Your task to perform on an android device: delete a single message in the gmail app Image 0: 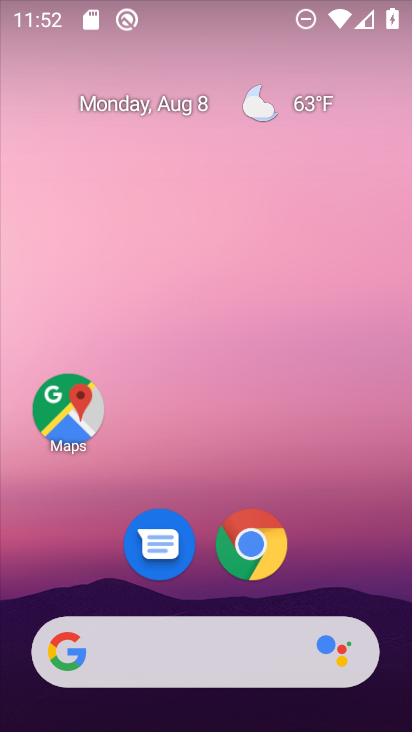
Step 0: drag from (182, 671) to (183, 200)
Your task to perform on an android device: delete a single message in the gmail app Image 1: 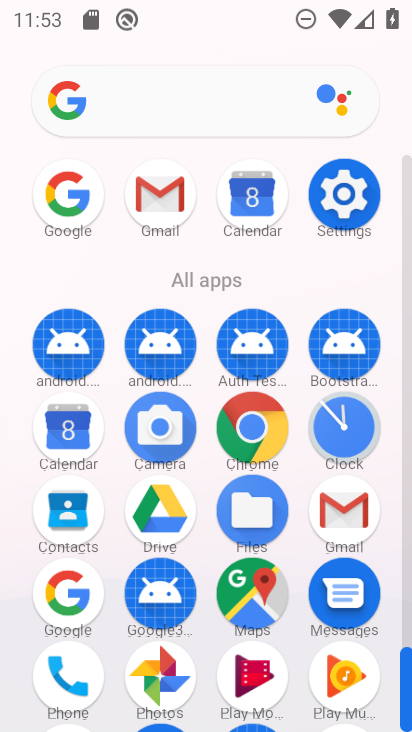
Step 1: click (158, 186)
Your task to perform on an android device: delete a single message in the gmail app Image 2: 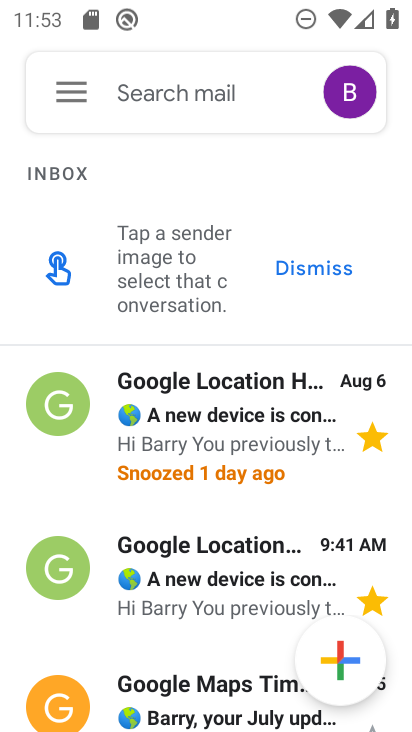
Step 2: click (239, 413)
Your task to perform on an android device: delete a single message in the gmail app Image 3: 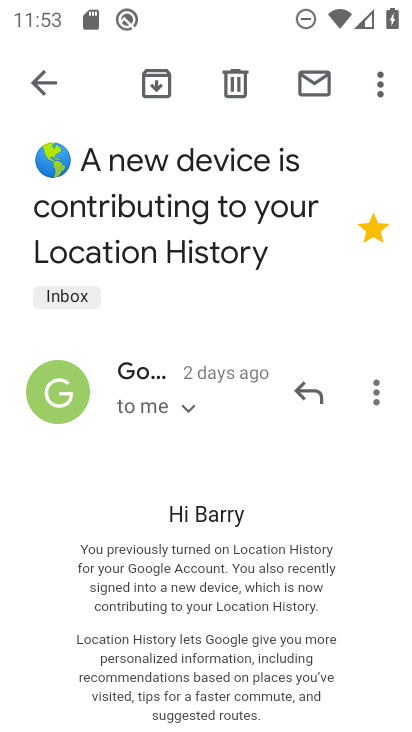
Step 3: click (249, 82)
Your task to perform on an android device: delete a single message in the gmail app Image 4: 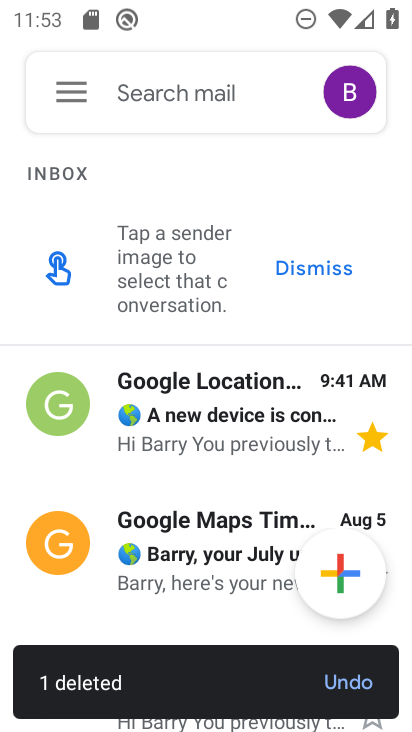
Step 4: task complete